Your task to perform on an android device: toggle show notifications on the lock screen Image 0: 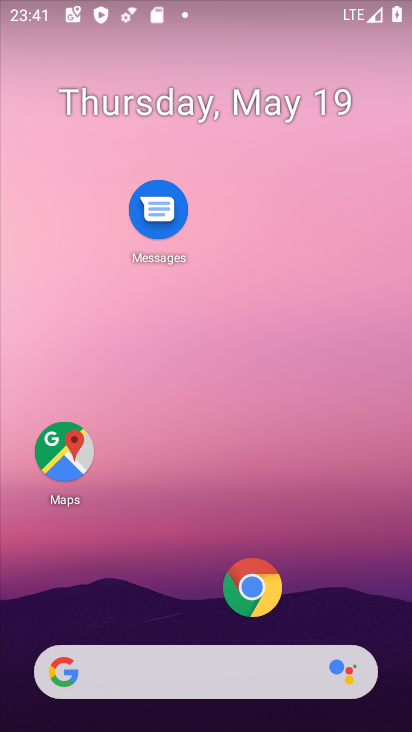
Step 0: drag from (142, 619) to (328, 10)
Your task to perform on an android device: toggle show notifications on the lock screen Image 1: 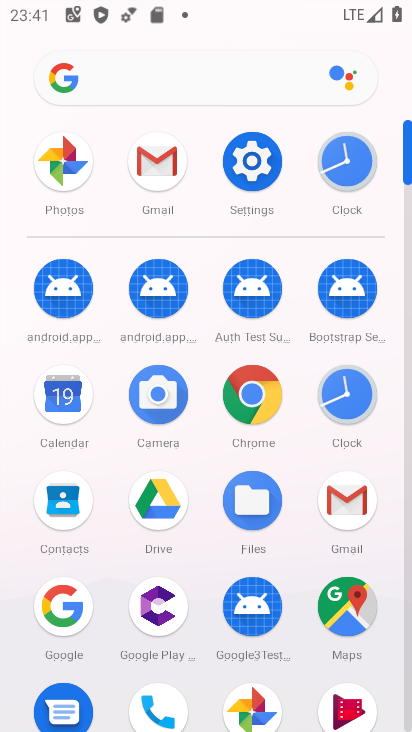
Step 1: click (246, 179)
Your task to perform on an android device: toggle show notifications on the lock screen Image 2: 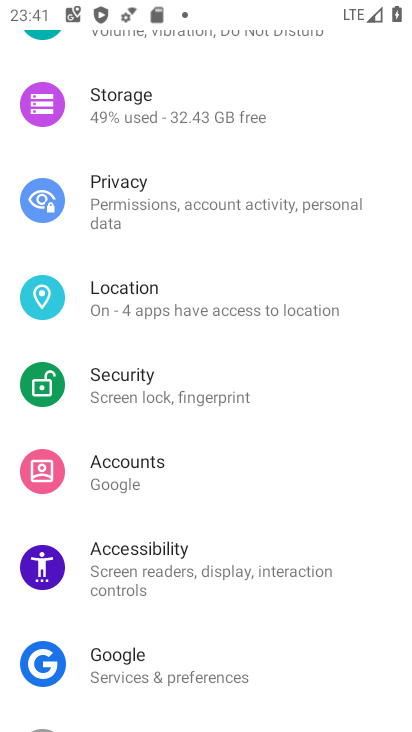
Step 2: drag from (246, 179) to (255, 518)
Your task to perform on an android device: toggle show notifications on the lock screen Image 3: 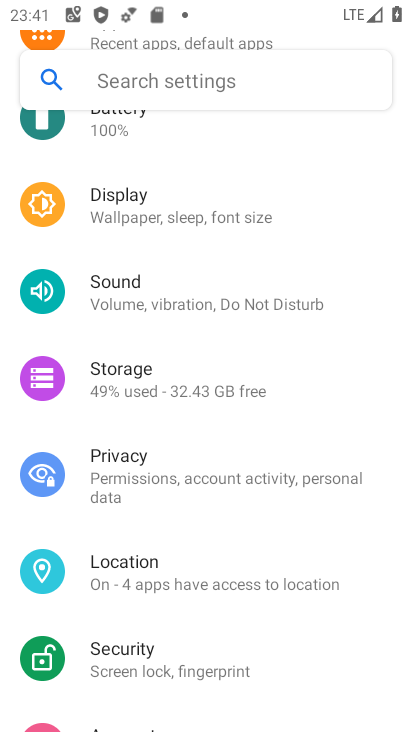
Step 3: drag from (144, 184) to (111, 555)
Your task to perform on an android device: toggle show notifications on the lock screen Image 4: 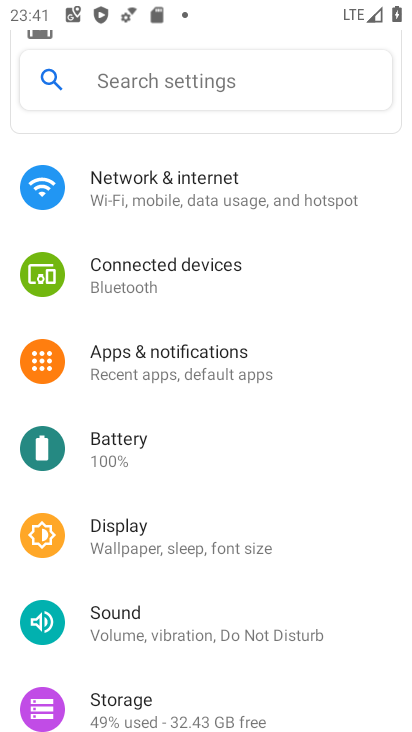
Step 4: click (242, 379)
Your task to perform on an android device: toggle show notifications on the lock screen Image 5: 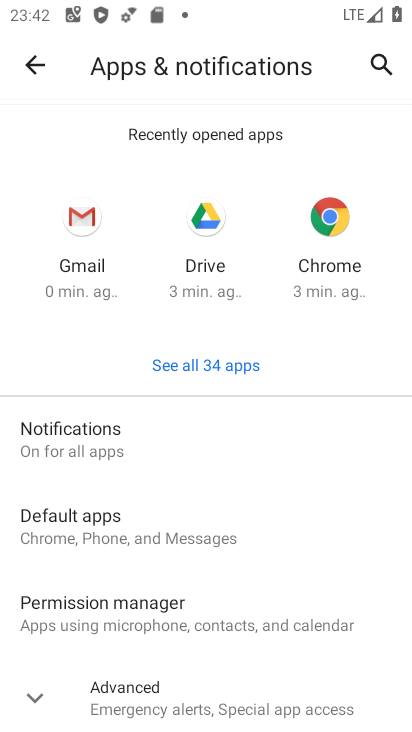
Step 5: click (115, 701)
Your task to perform on an android device: toggle show notifications on the lock screen Image 6: 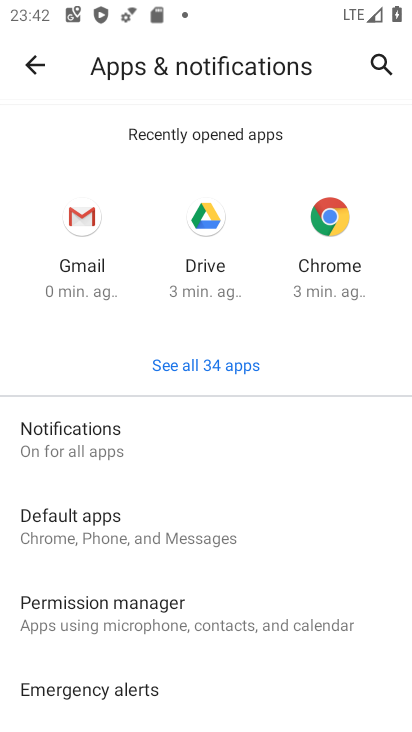
Step 6: drag from (115, 701) to (181, 341)
Your task to perform on an android device: toggle show notifications on the lock screen Image 7: 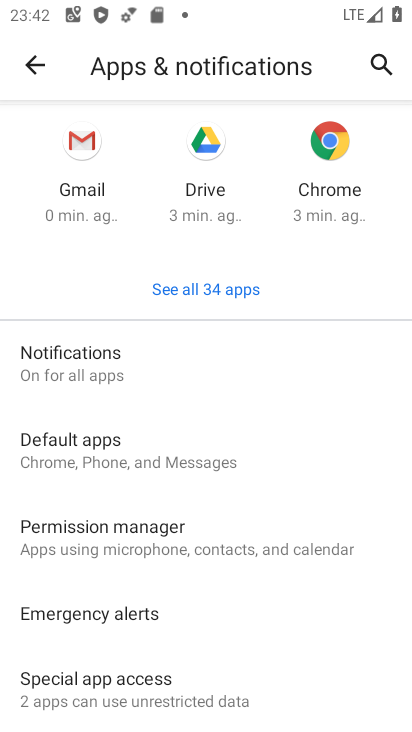
Step 7: click (128, 360)
Your task to perform on an android device: toggle show notifications on the lock screen Image 8: 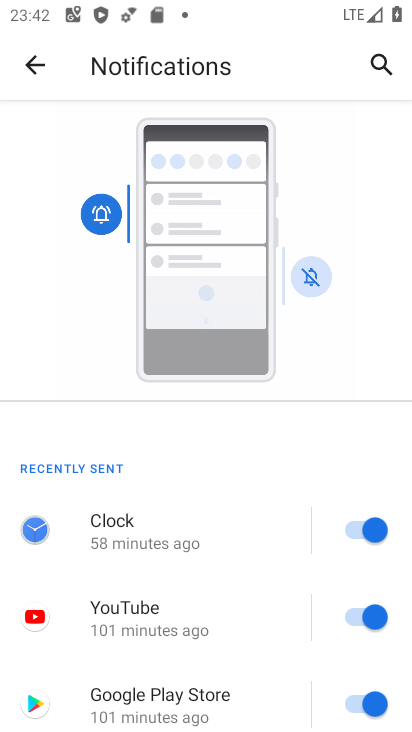
Step 8: drag from (62, 671) to (110, 163)
Your task to perform on an android device: toggle show notifications on the lock screen Image 9: 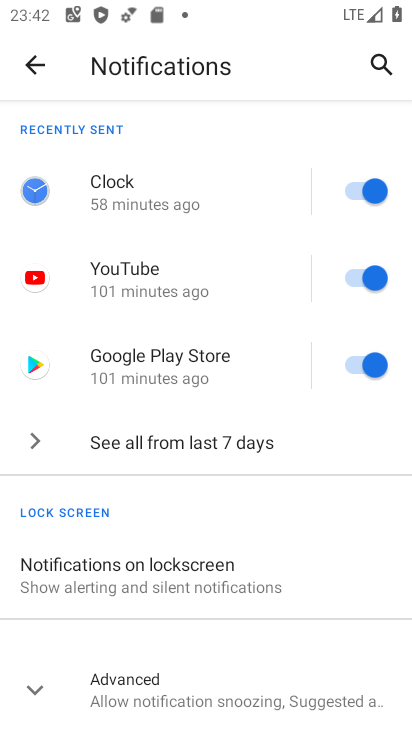
Step 9: click (242, 561)
Your task to perform on an android device: toggle show notifications on the lock screen Image 10: 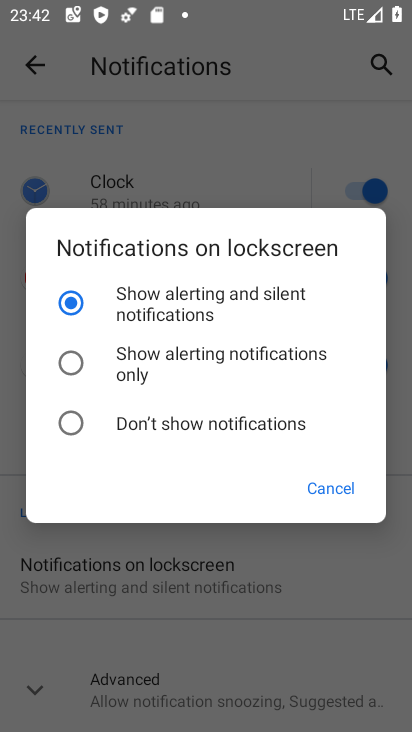
Step 10: click (238, 428)
Your task to perform on an android device: toggle show notifications on the lock screen Image 11: 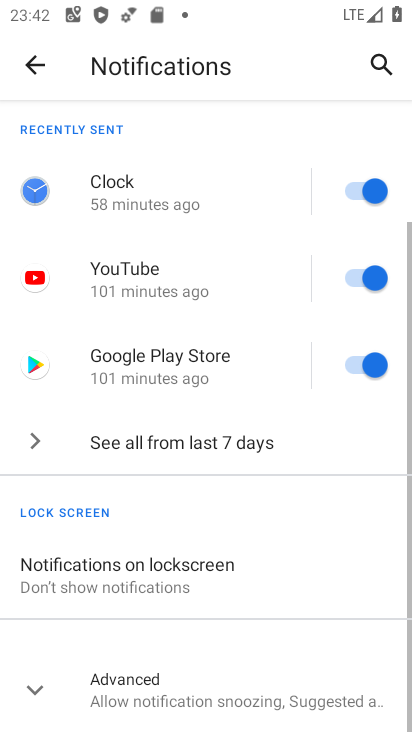
Step 11: task complete